Your task to perform on an android device: Search for Mexican restaurants on Maps Image 0: 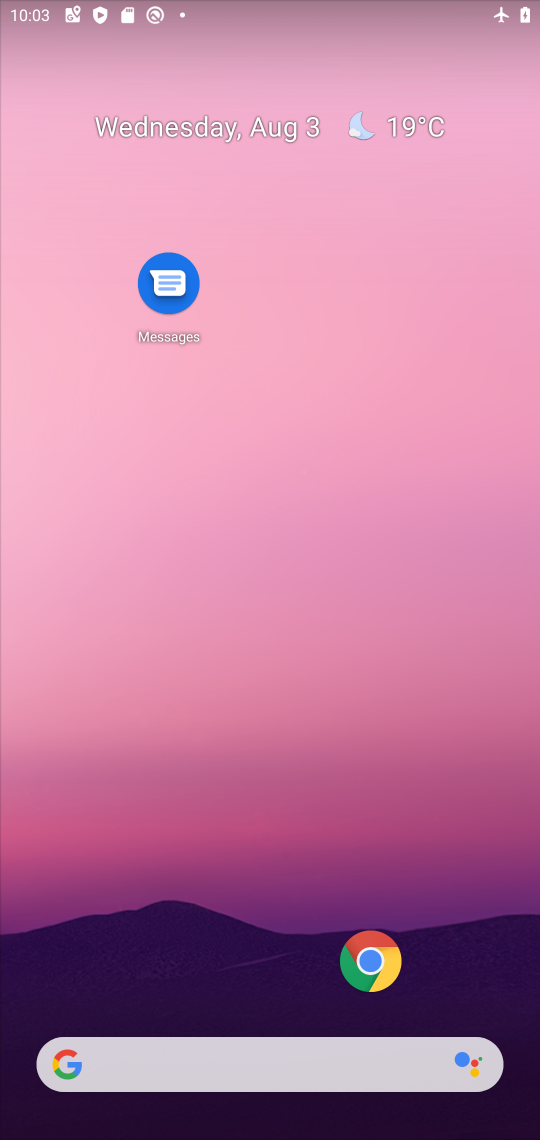
Step 0: drag from (285, 1001) to (328, 101)
Your task to perform on an android device: Search for Mexican restaurants on Maps Image 1: 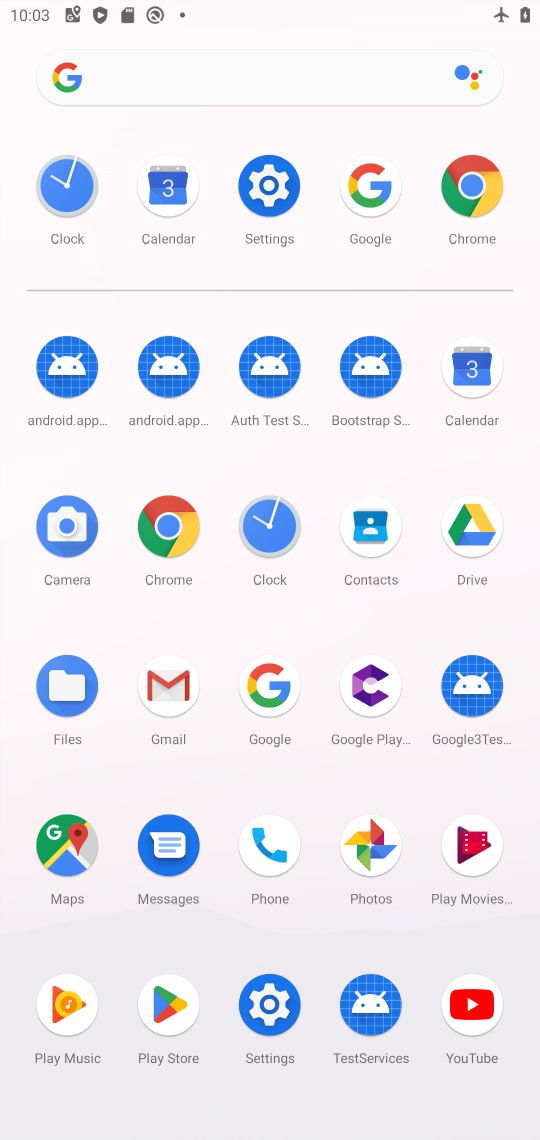
Step 1: click (81, 857)
Your task to perform on an android device: Search for Mexican restaurants on Maps Image 2: 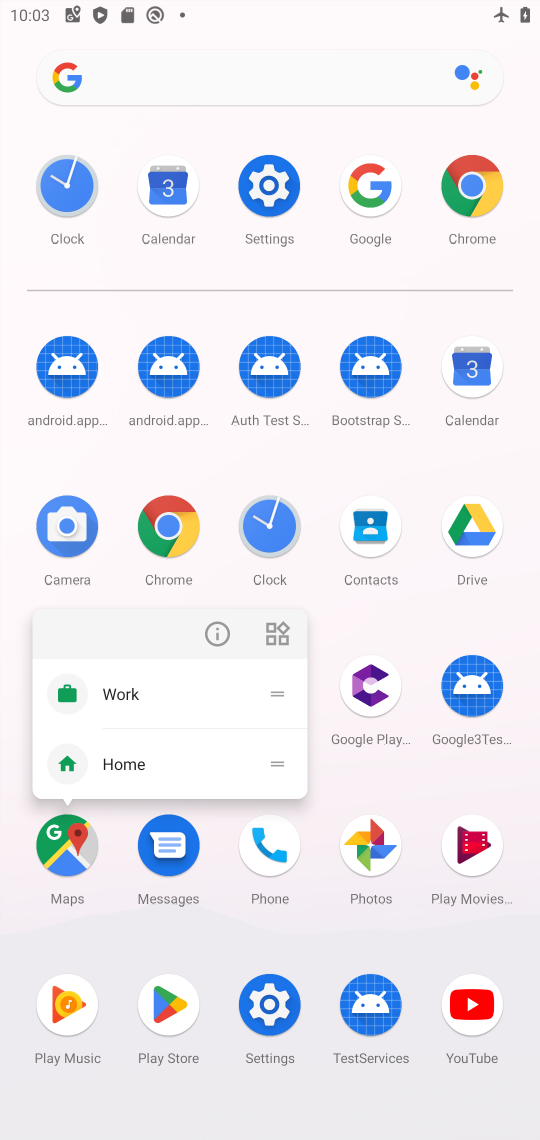
Step 2: click (81, 853)
Your task to perform on an android device: Search for Mexican restaurants on Maps Image 3: 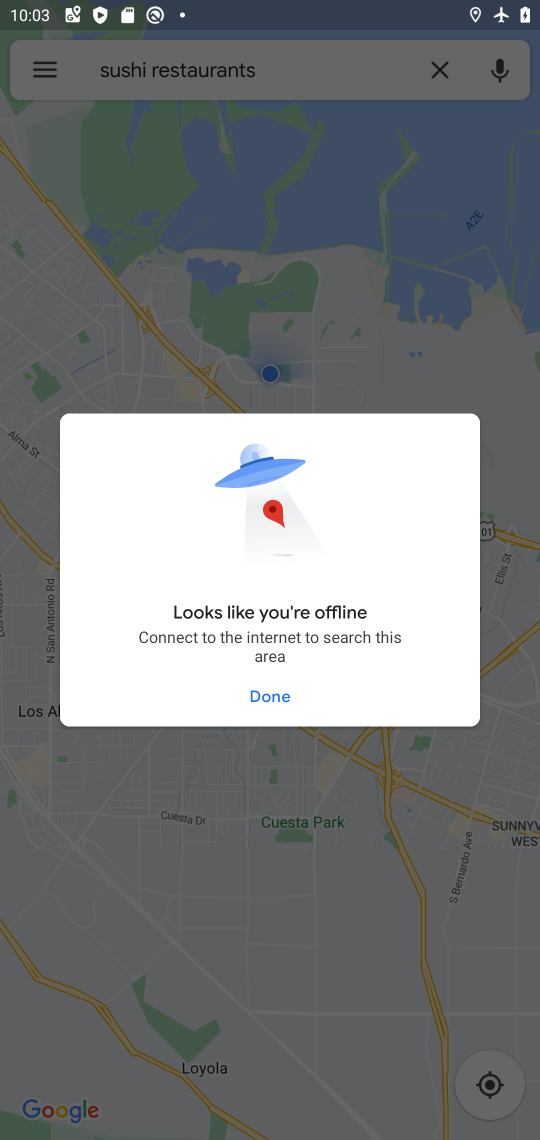
Step 3: click (282, 704)
Your task to perform on an android device: Search for Mexican restaurants on Maps Image 4: 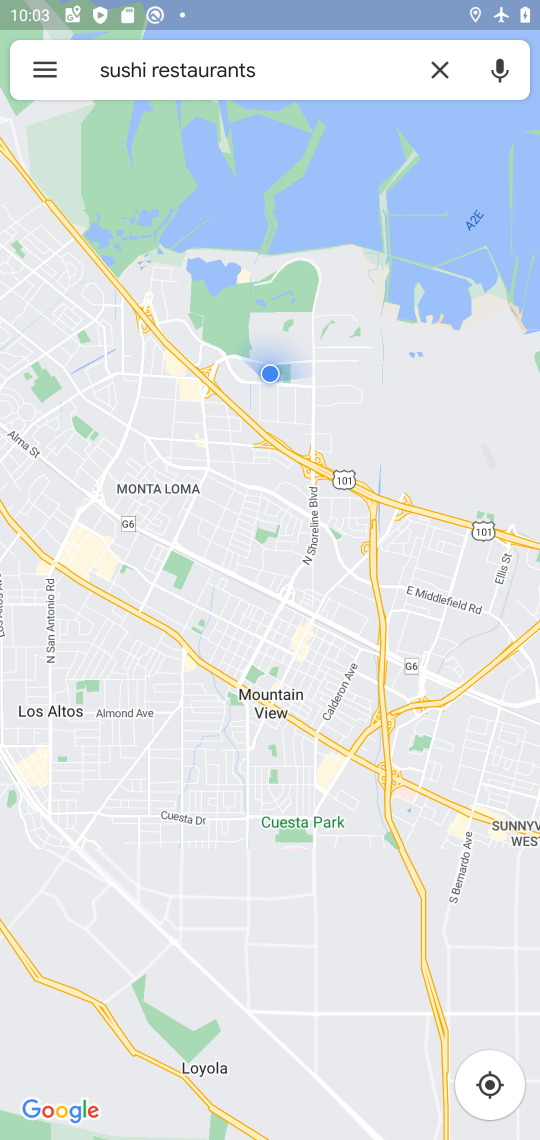
Step 4: click (433, 64)
Your task to perform on an android device: Search for Mexican restaurants on Maps Image 5: 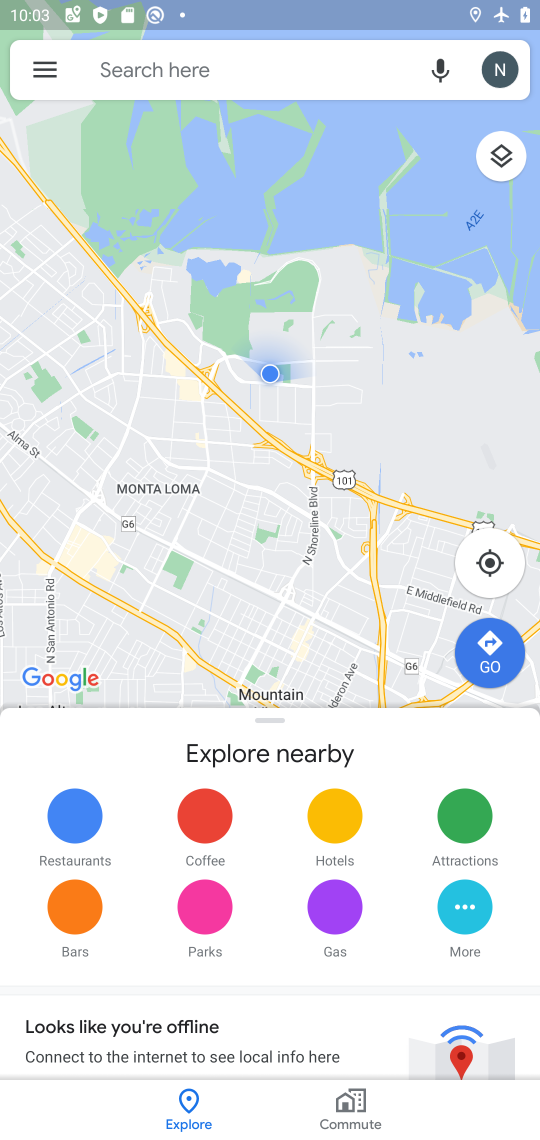
Step 5: click (236, 67)
Your task to perform on an android device: Search for Mexican restaurants on Maps Image 6: 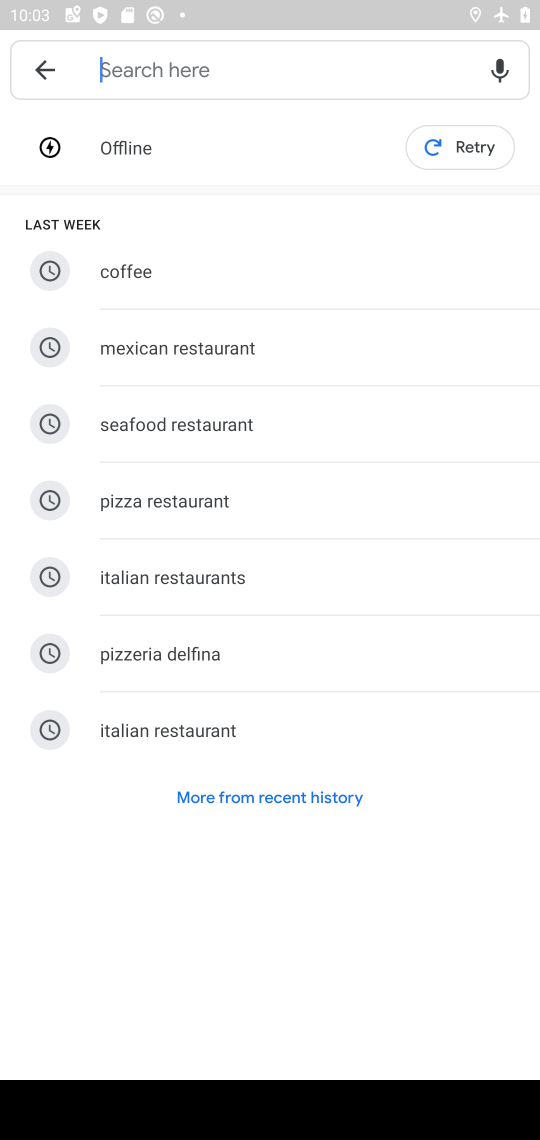
Step 6: click (138, 363)
Your task to perform on an android device: Search for Mexican restaurants on Maps Image 7: 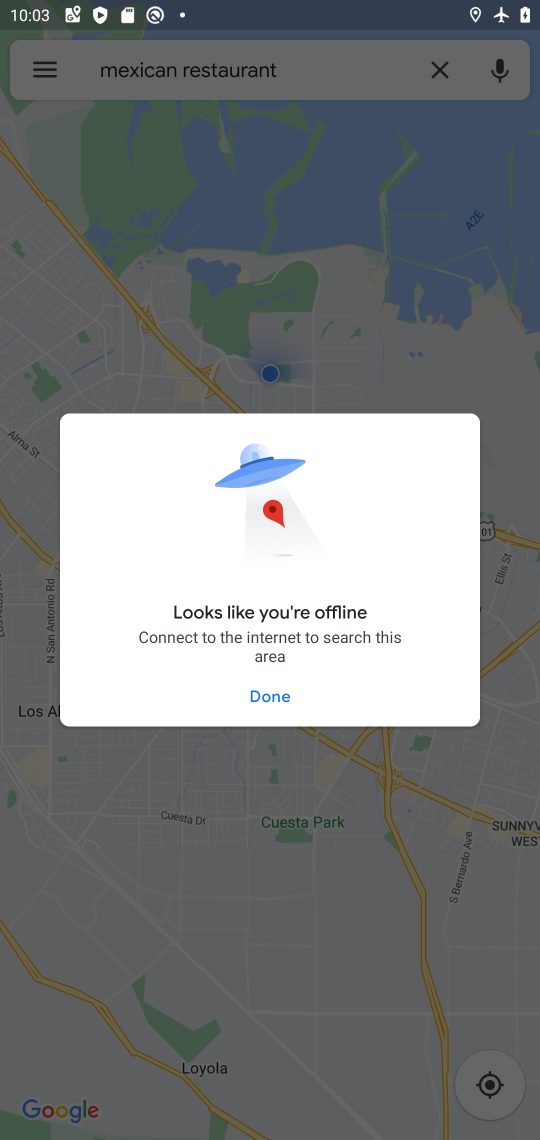
Step 7: click (265, 685)
Your task to perform on an android device: Search for Mexican restaurants on Maps Image 8: 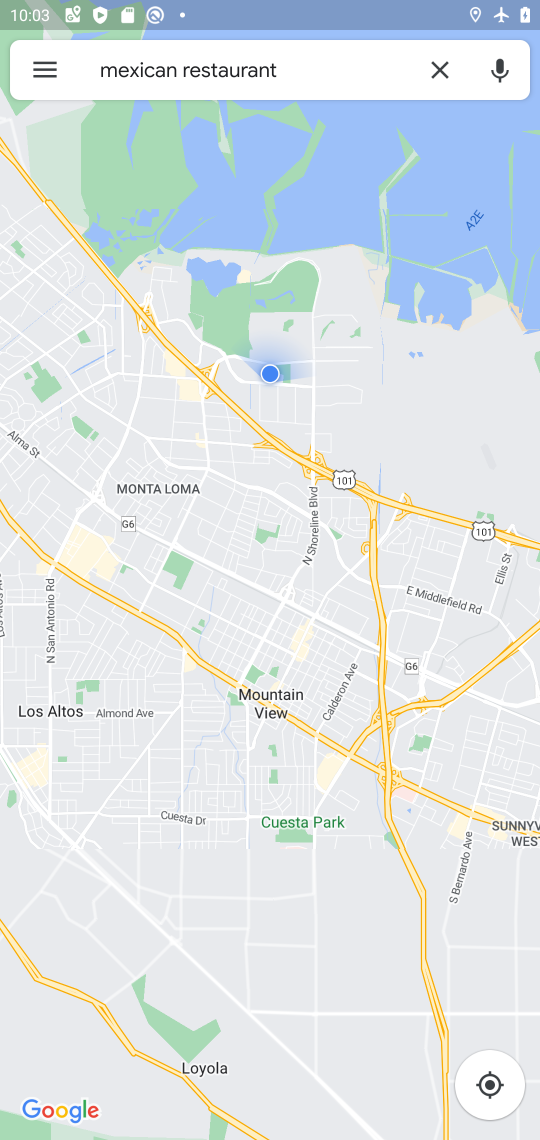
Step 8: task complete